Your task to perform on an android device: toggle airplane mode Image 0: 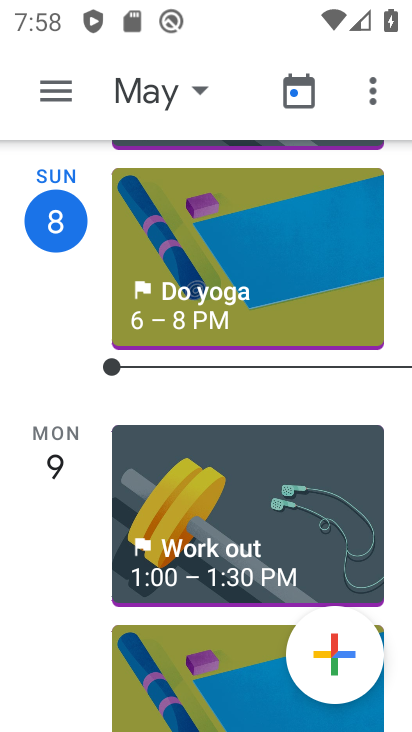
Step 0: drag from (373, 568) to (347, 271)
Your task to perform on an android device: toggle airplane mode Image 1: 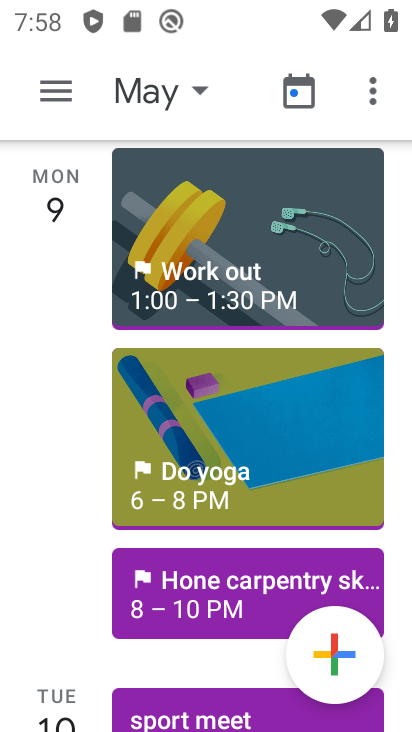
Step 1: press home button
Your task to perform on an android device: toggle airplane mode Image 2: 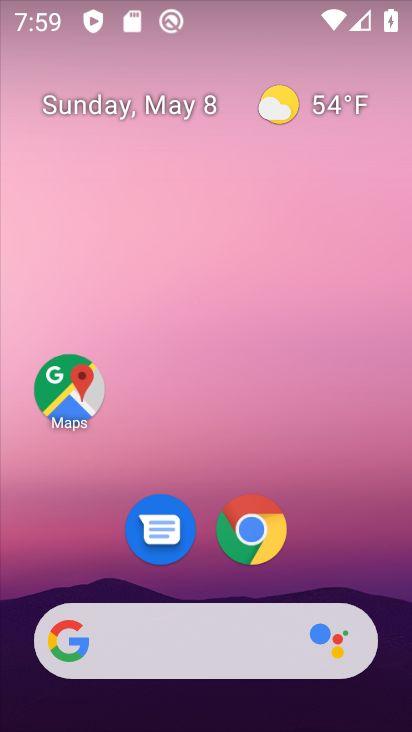
Step 2: drag from (372, 525) to (358, 140)
Your task to perform on an android device: toggle airplane mode Image 3: 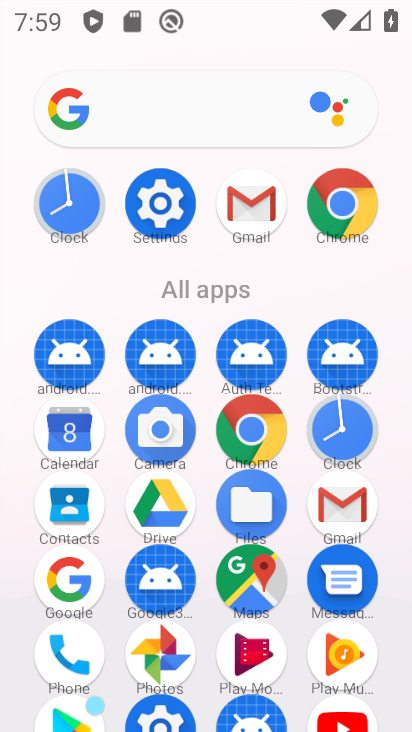
Step 3: drag from (294, 632) to (292, 287)
Your task to perform on an android device: toggle airplane mode Image 4: 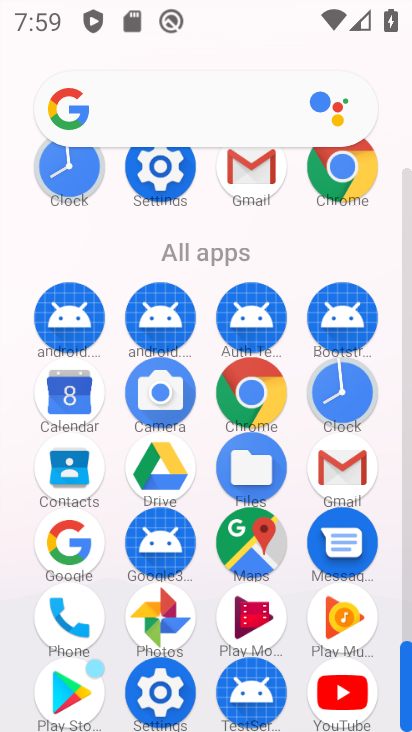
Step 4: click (183, 729)
Your task to perform on an android device: toggle airplane mode Image 5: 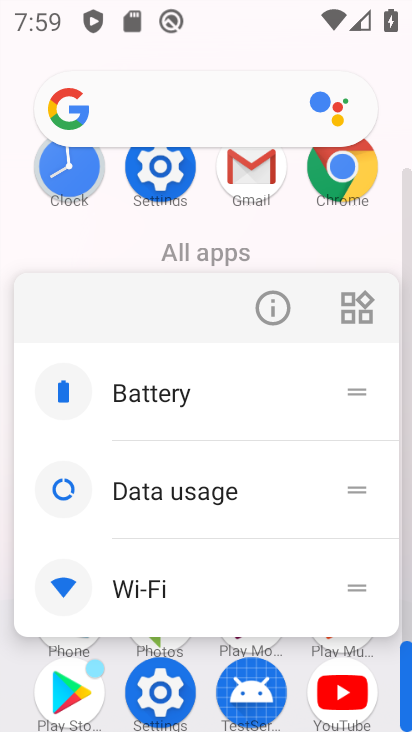
Step 5: click (151, 673)
Your task to perform on an android device: toggle airplane mode Image 6: 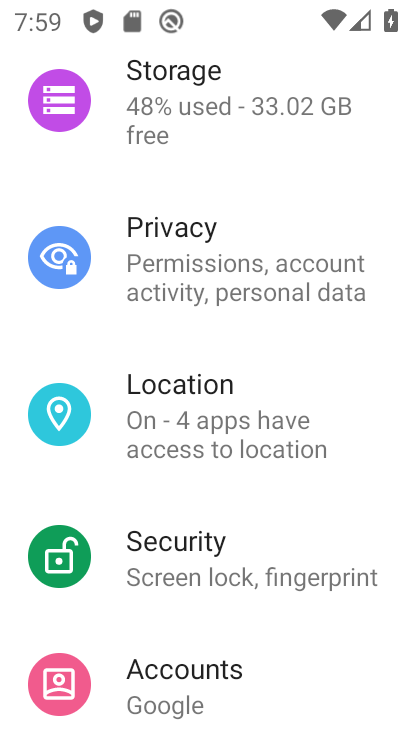
Step 6: drag from (271, 211) to (227, 612)
Your task to perform on an android device: toggle airplane mode Image 7: 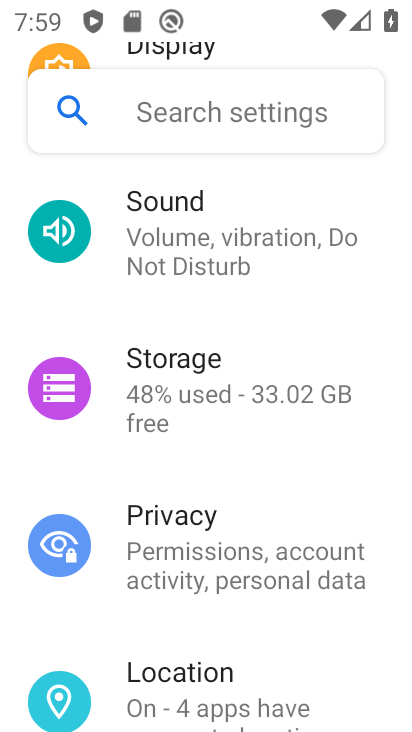
Step 7: drag from (216, 239) to (219, 503)
Your task to perform on an android device: toggle airplane mode Image 8: 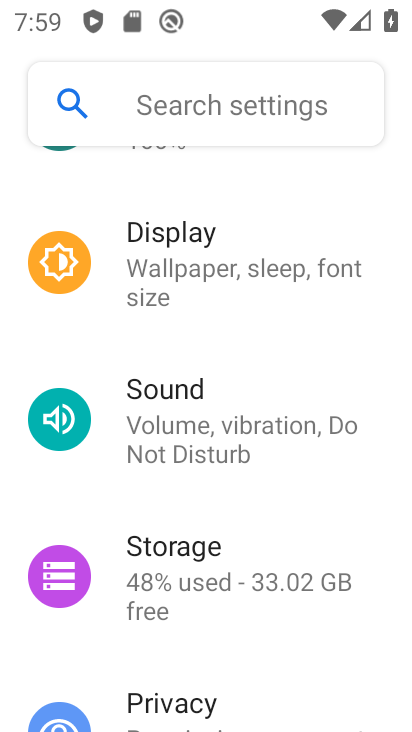
Step 8: drag from (231, 229) to (230, 514)
Your task to perform on an android device: toggle airplane mode Image 9: 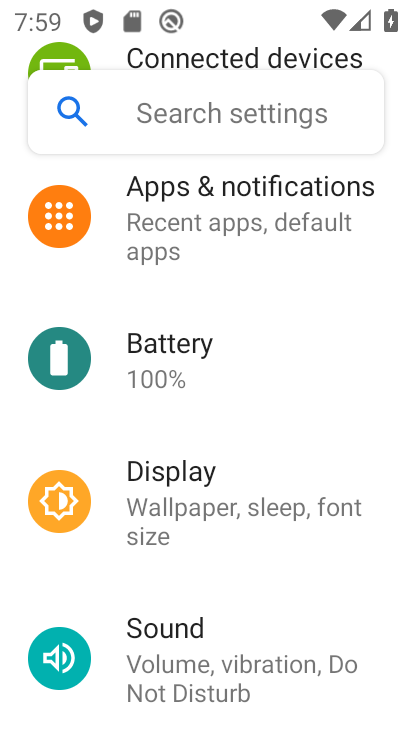
Step 9: drag from (242, 204) to (273, 525)
Your task to perform on an android device: toggle airplane mode Image 10: 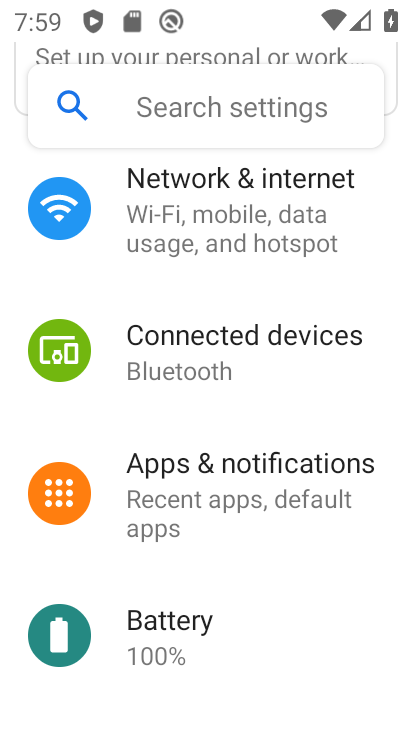
Step 10: click (275, 230)
Your task to perform on an android device: toggle airplane mode Image 11: 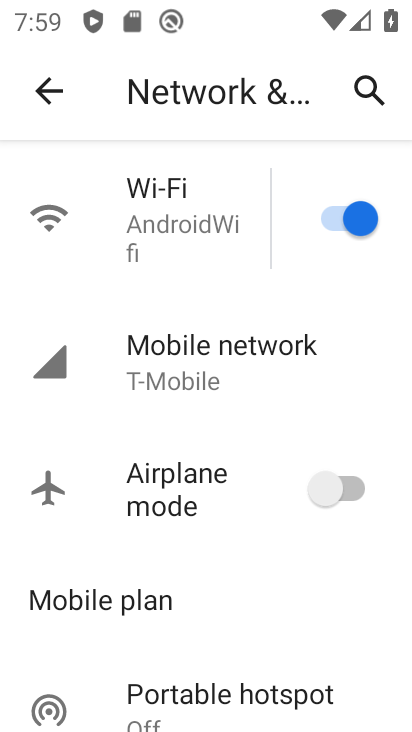
Step 11: click (353, 485)
Your task to perform on an android device: toggle airplane mode Image 12: 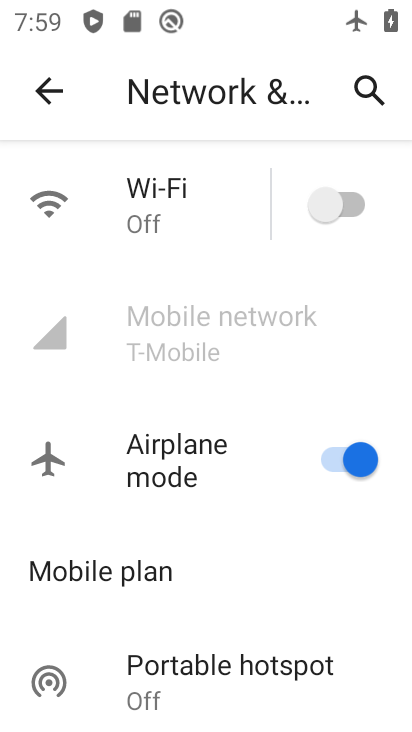
Step 12: task complete